Your task to perform on an android device: Turn on the flashlight Image 0: 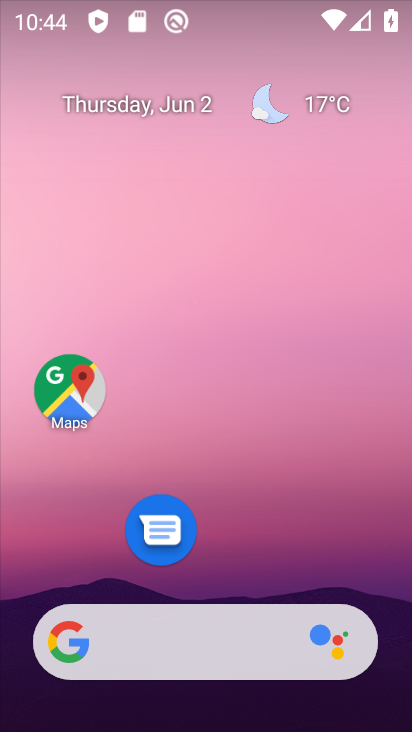
Step 0: drag from (241, 620) to (202, 152)
Your task to perform on an android device: Turn on the flashlight Image 1: 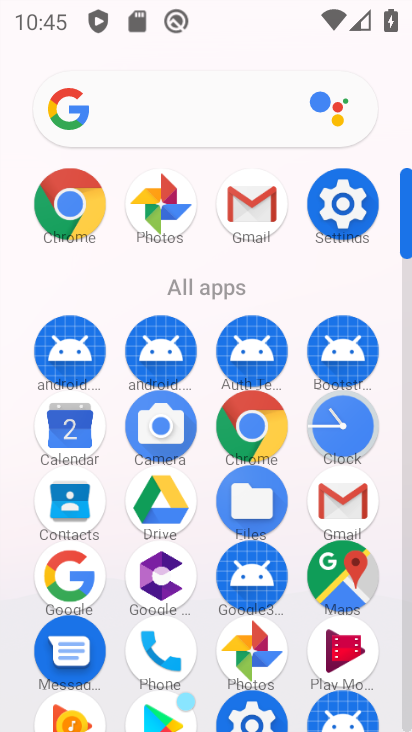
Step 1: task complete